Your task to perform on an android device: add a contact Image 0: 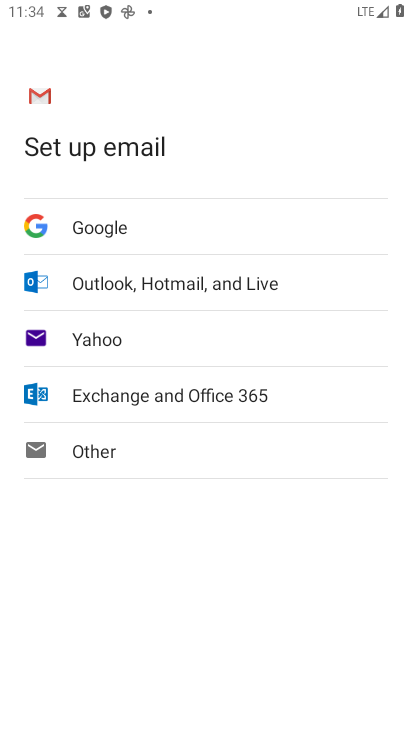
Step 0: press back button
Your task to perform on an android device: add a contact Image 1: 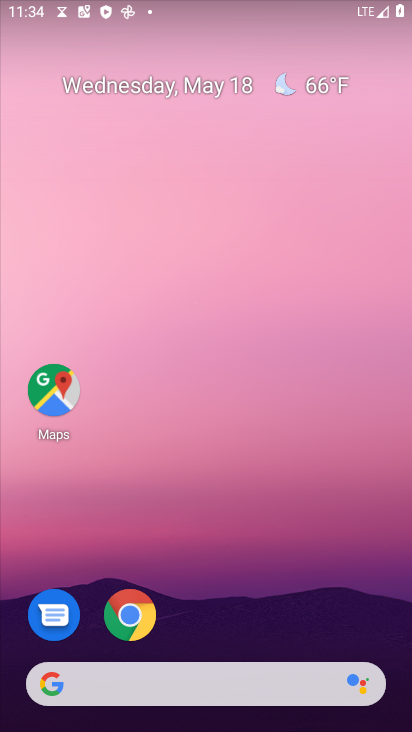
Step 1: drag from (227, 528) to (219, 15)
Your task to perform on an android device: add a contact Image 2: 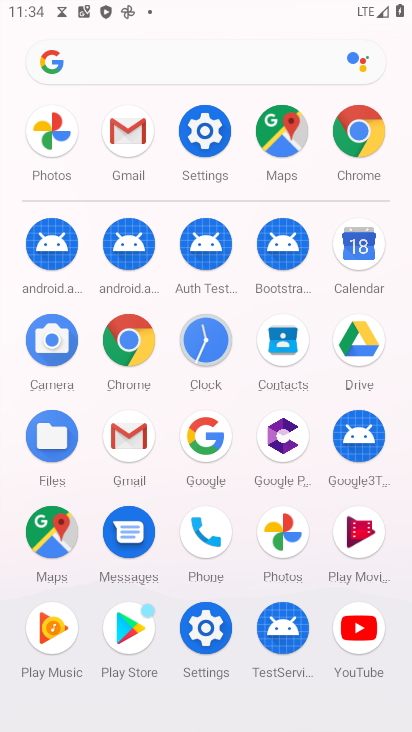
Step 2: drag from (11, 506) to (11, 189)
Your task to perform on an android device: add a contact Image 3: 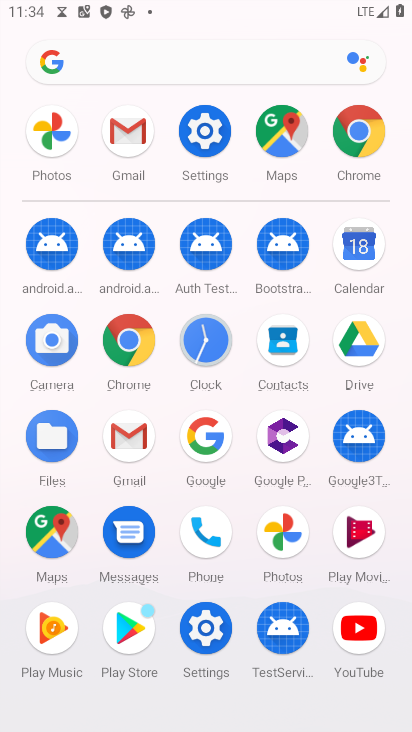
Step 3: click (281, 341)
Your task to perform on an android device: add a contact Image 4: 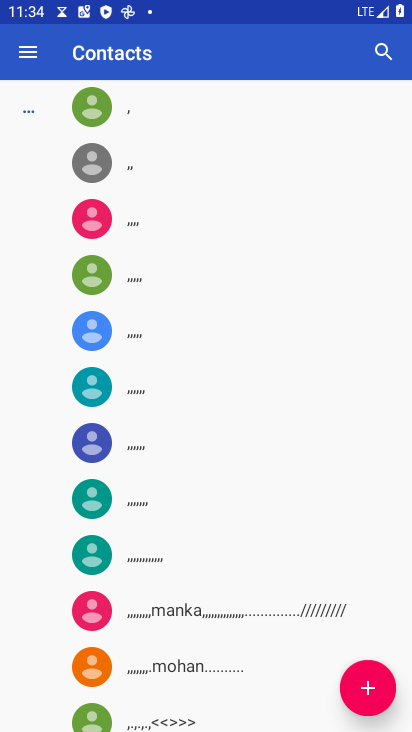
Step 4: task complete